Your task to perform on an android device: Play the last video I watched on Youtube Image 0: 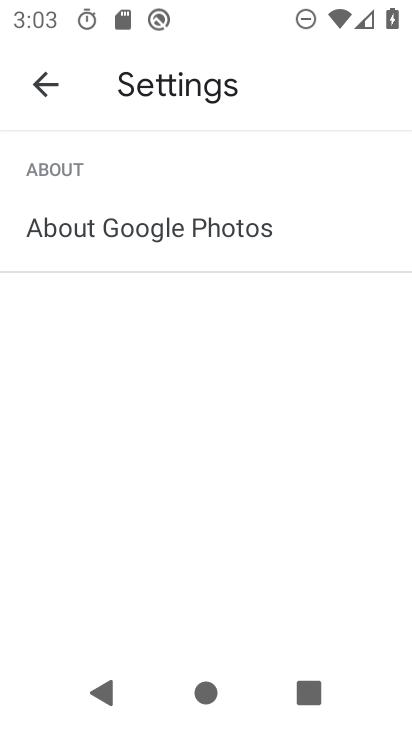
Step 0: press home button
Your task to perform on an android device: Play the last video I watched on Youtube Image 1: 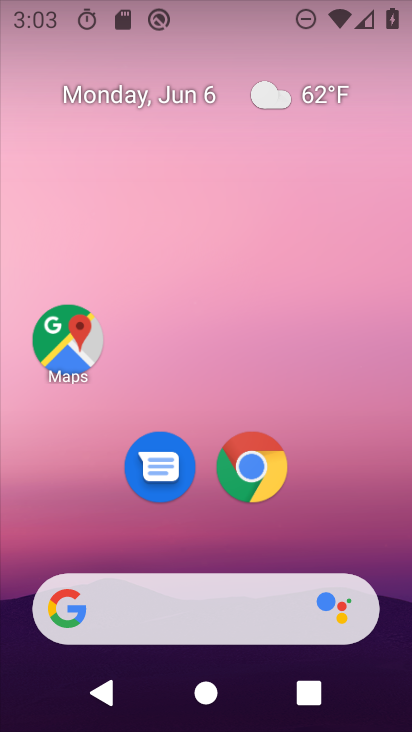
Step 1: drag from (209, 544) to (211, 128)
Your task to perform on an android device: Play the last video I watched on Youtube Image 2: 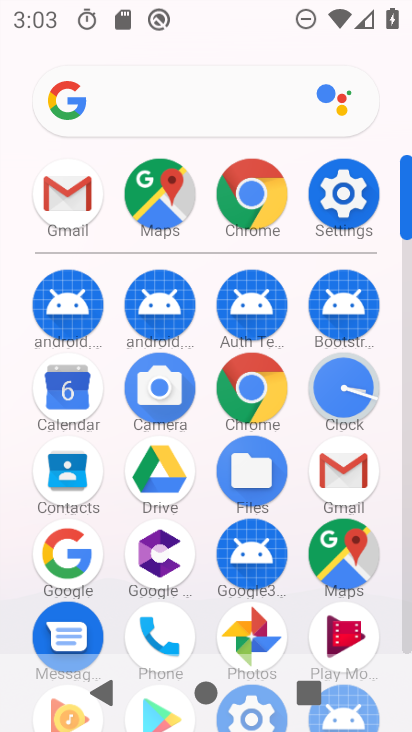
Step 2: drag from (273, 607) to (316, 324)
Your task to perform on an android device: Play the last video I watched on Youtube Image 3: 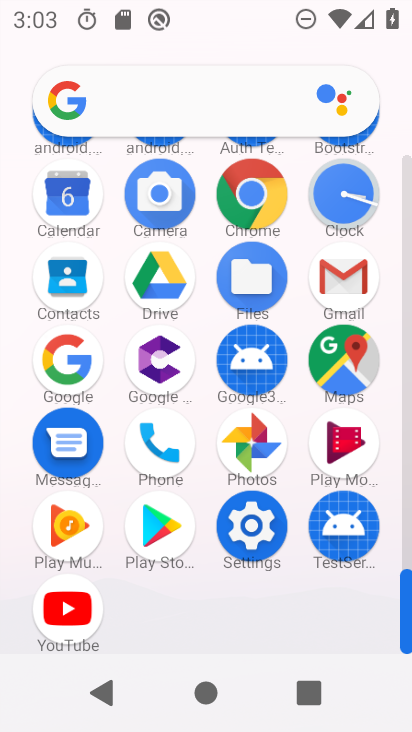
Step 3: click (67, 638)
Your task to perform on an android device: Play the last video I watched on Youtube Image 4: 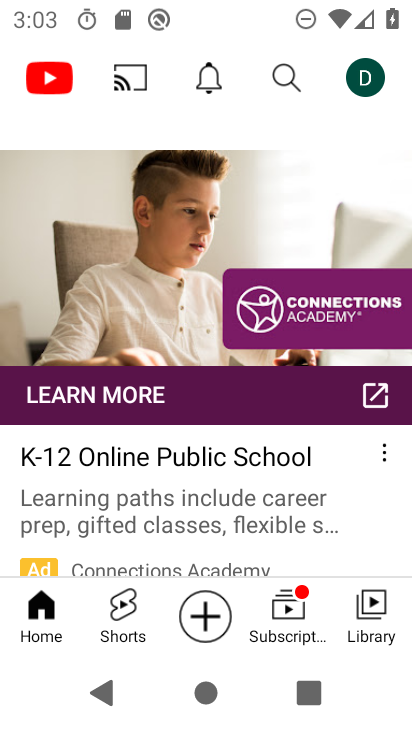
Step 4: click (365, 632)
Your task to perform on an android device: Play the last video I watched on Youtube Image 5: 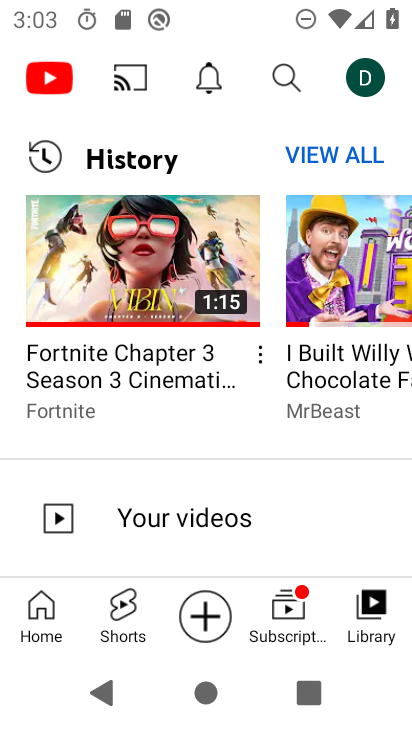
Step 5: task complete